Your task to perform on an android device: What's the weather going to be this weekend? Image 0: 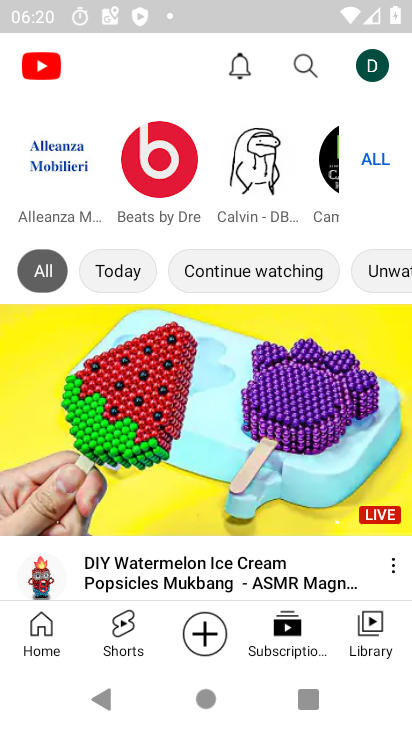
Step 0: press home button
Your task to perform on an android device: What's the weather going to be this weekend? Image 1: 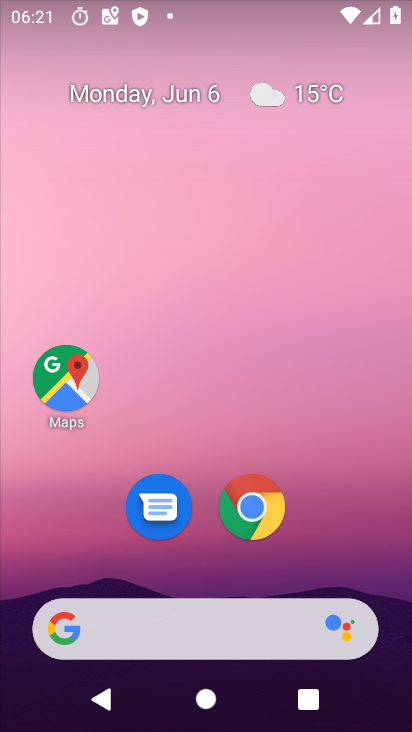
Step 1: click (121, 637)
Your task to perform on an android device: What's the weather going to be this weekend? Image 2: 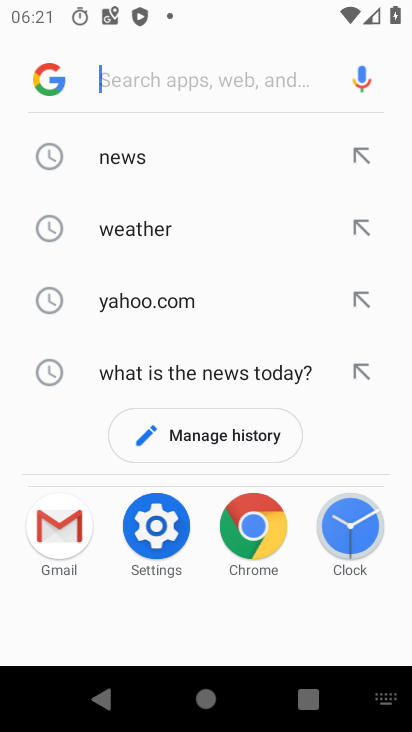
Step 2: click (127, 232)
Your task to perform on an android device: What's the weather going to be this weekend? Image 3: 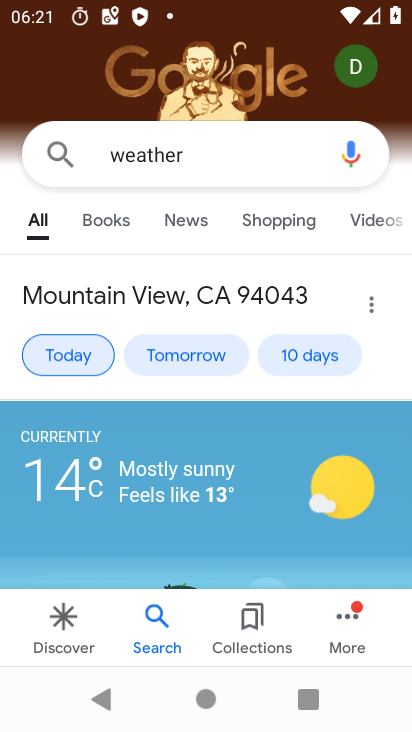
Step 3: click (313, 371)
Your task to perform on an android device: What's the weather going to be this weekend? Image 4: 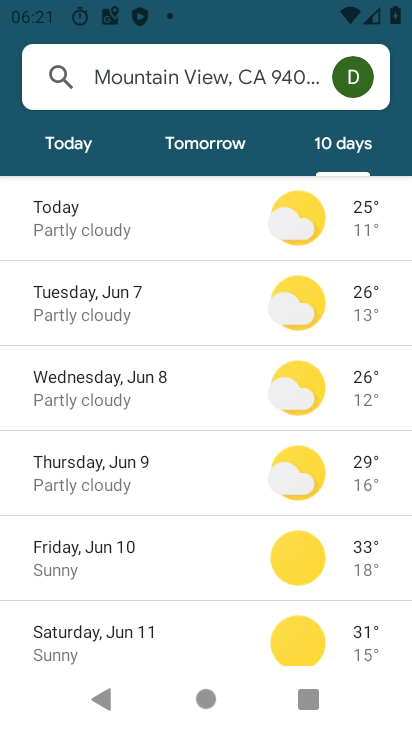
Step 4: task complete